Your task to perform on an android device: Search for a runner rug on Crate & Barrel. Image 0: 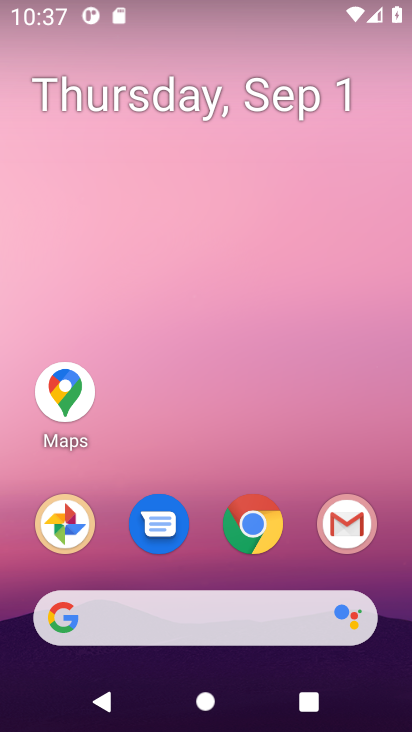
Step 0: press home button
Your task to perform on an android device: Search for a runner rug on Crate & Barrel. Image 1: 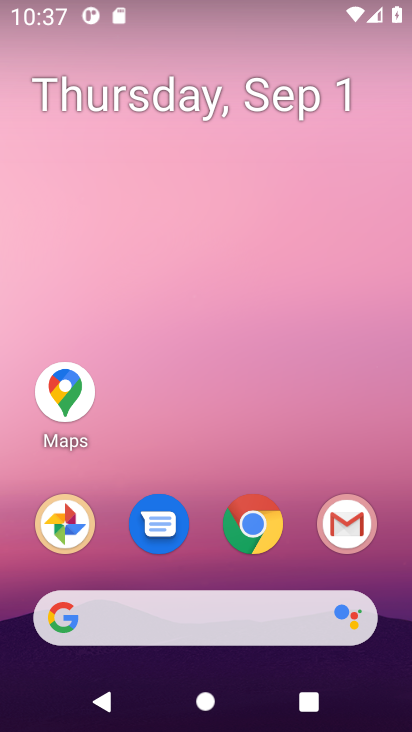
Step 1: drag from (386, 584) to (386, 127)
Your task to perform on an android device: Search for a runner rug on Crate & Barrel. Image 2: 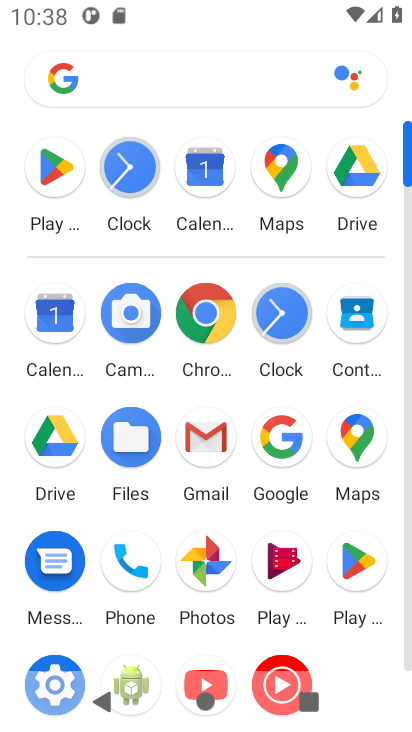
Step 2: click (206, 314)
Your task to perform on an android device: Search for a runner rug on Crate & Barrel. Image 3: 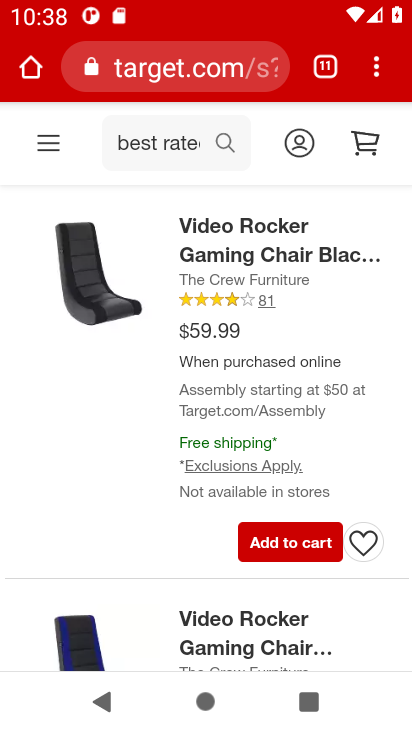
Step 3: click (198, 65)
Your task to perform on an android device: Search for a runner rug on Crate & Barrel. Image 4: 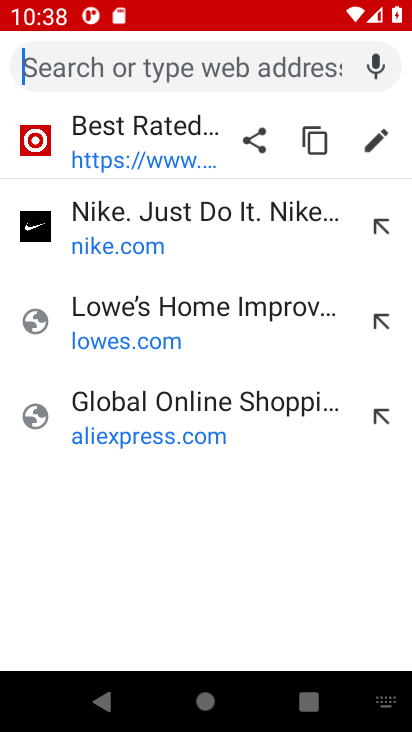
Step 4: type "crate barrel"
Your task to perform on an android device: Search for a runner rug on Crate & Barrel. Image 5: 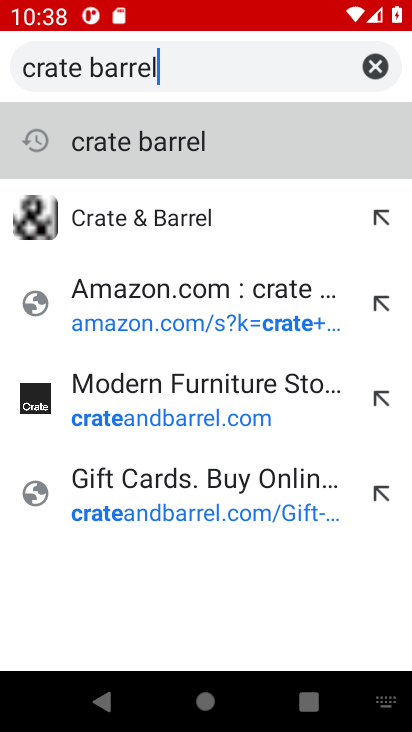
Step 5: click (182, 214)
Your task to perform on an android device: Search for a runner rug on Crate & Barrel. Image 6: 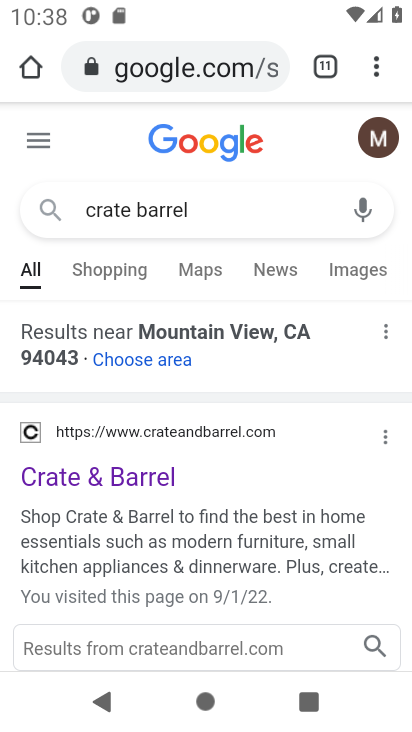
Step 6: click (155, 479)
Your task to perform on an android device: Search for a runner rug on Crate & Barrel. Image 7: 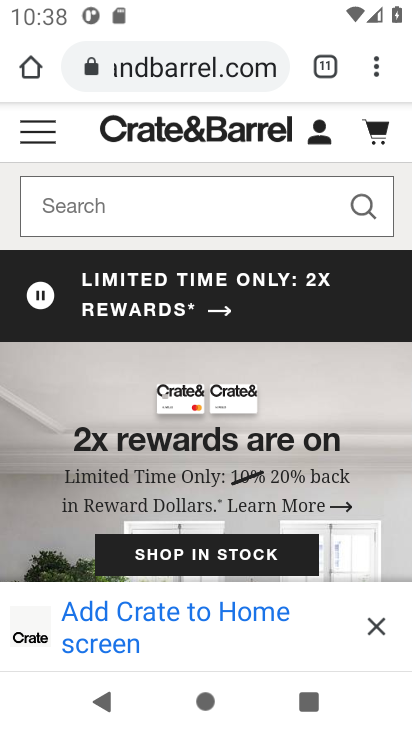
Step 7: click (202, 199)
Your task to perform on an android device: Search for a runner rug on Crate & Barrel. Image 8: 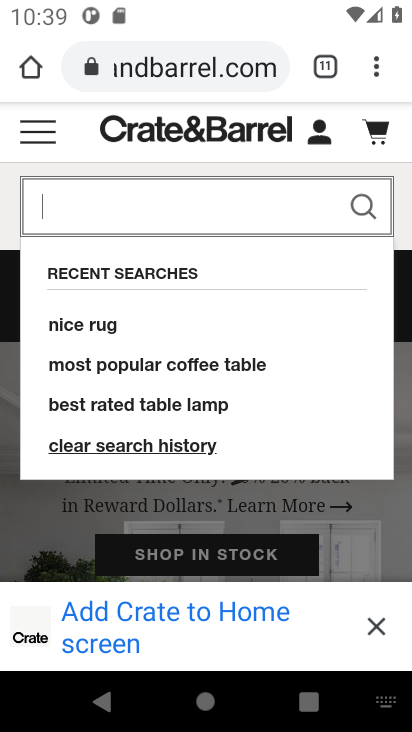
Step 8: type "runner rug "
Your task to perform on an android device: Search for a runner rug on Crate & Barrel. Image 9: 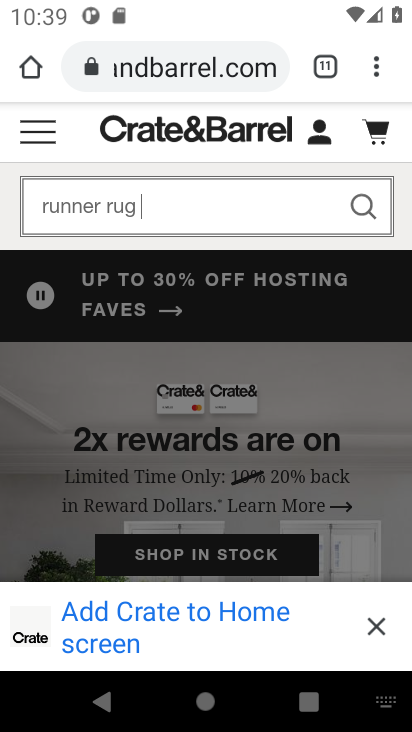
Step 9: click (371, 199)
Your task to perform on an android device: Search for a runner rug on Crate & Barrel. Image 10: 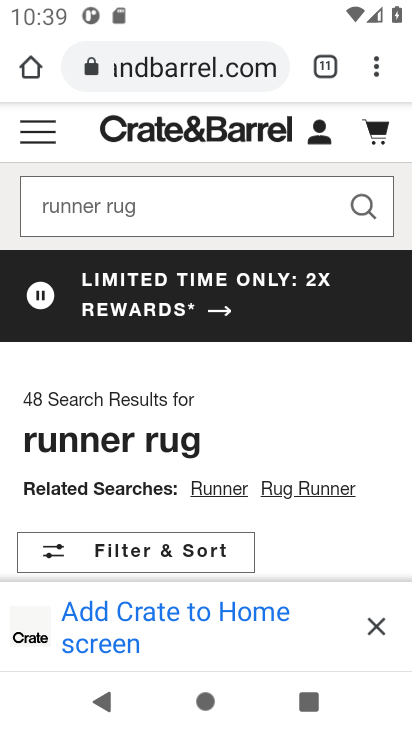
Step 10: task complete